Your task to perform on an android device: Clear the cart on newegg. Image 0: 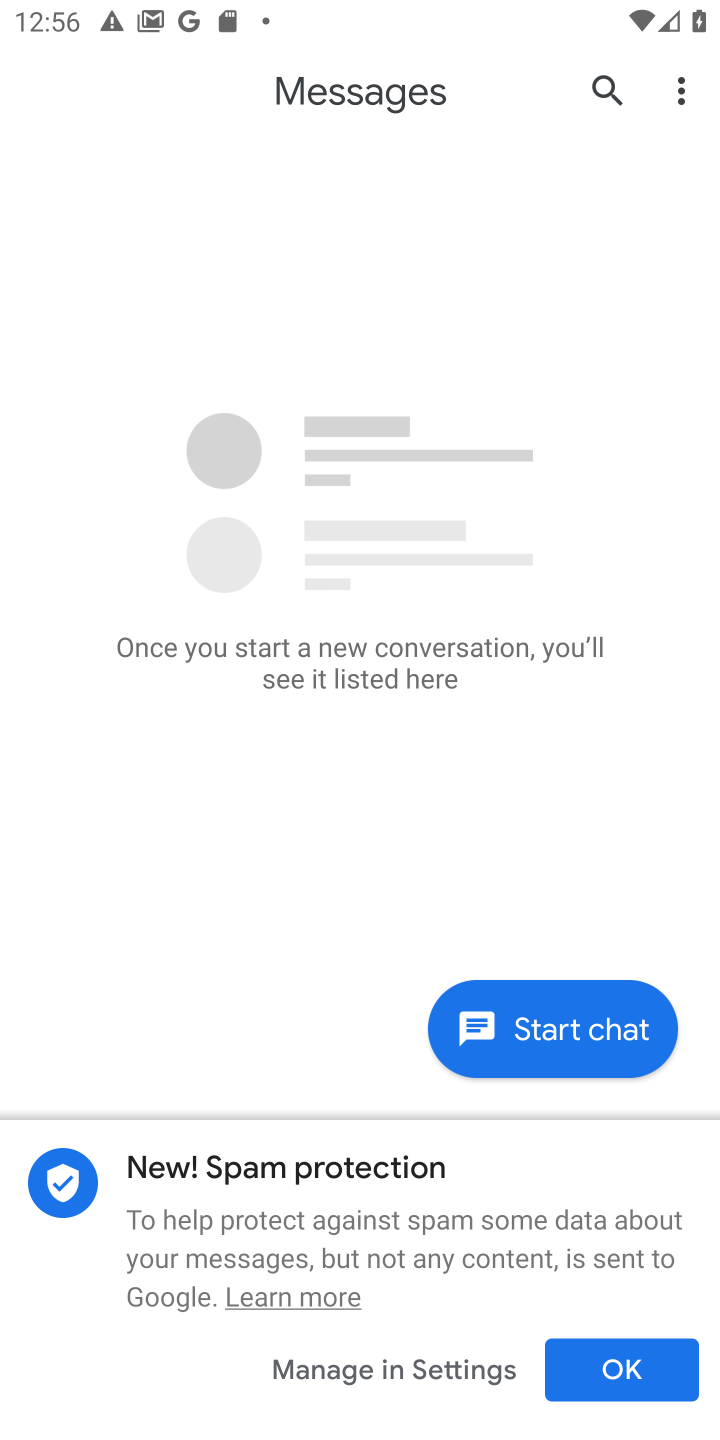
Step 0: press home button
Your task to perform on an android device: Clear the cart on newegg. Image 1: 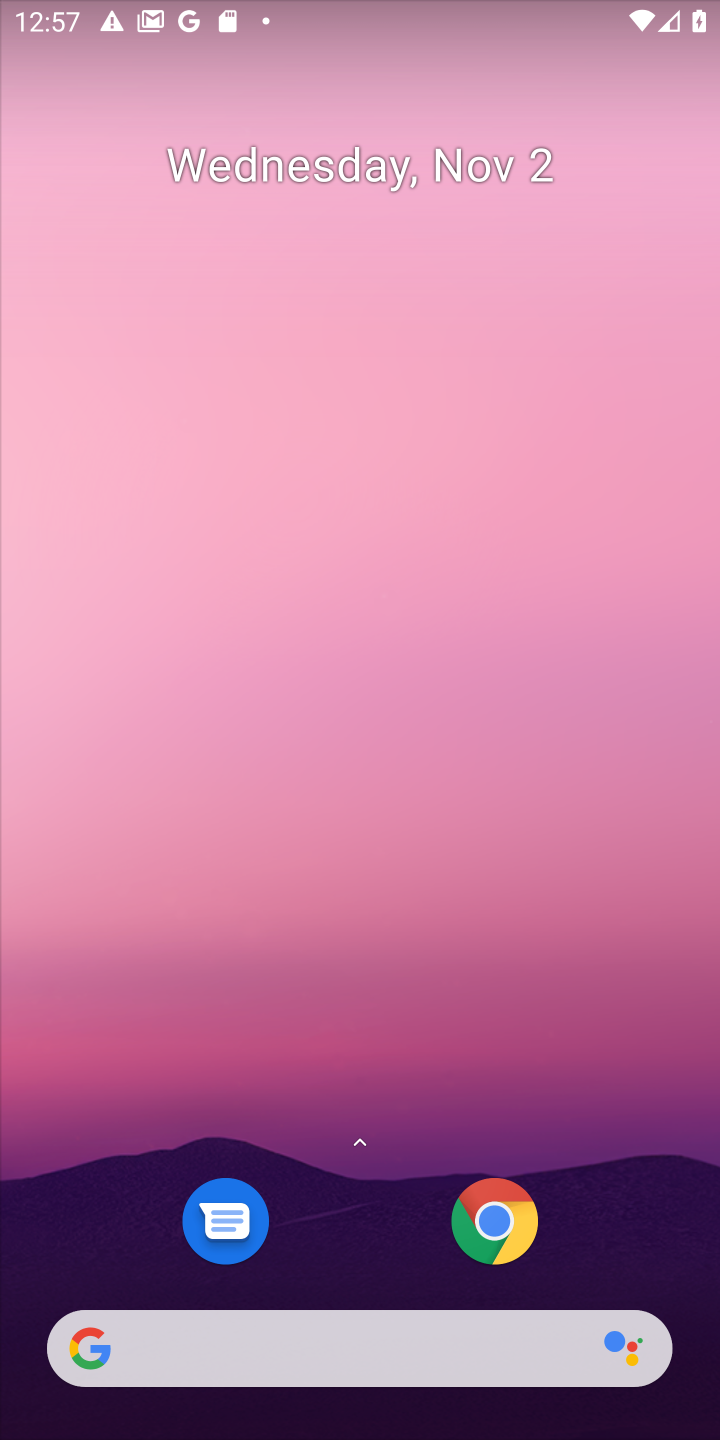
Step 1: click (362, 1365)
Your task to perform on an android device: Clear the cart on newegg. Image 2: 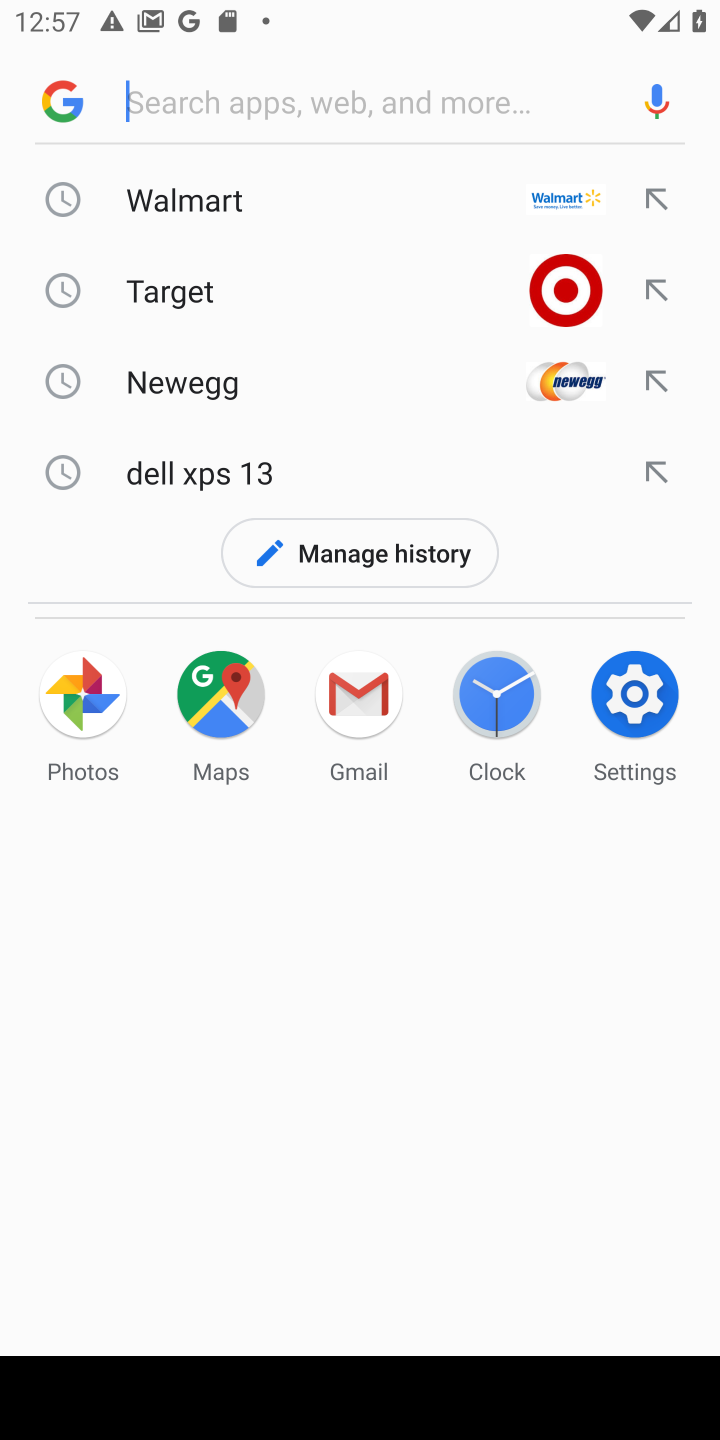
Step 2: click (175, 366)
Your task to perform on an android device: Clear the cart on newegg. Image 3: 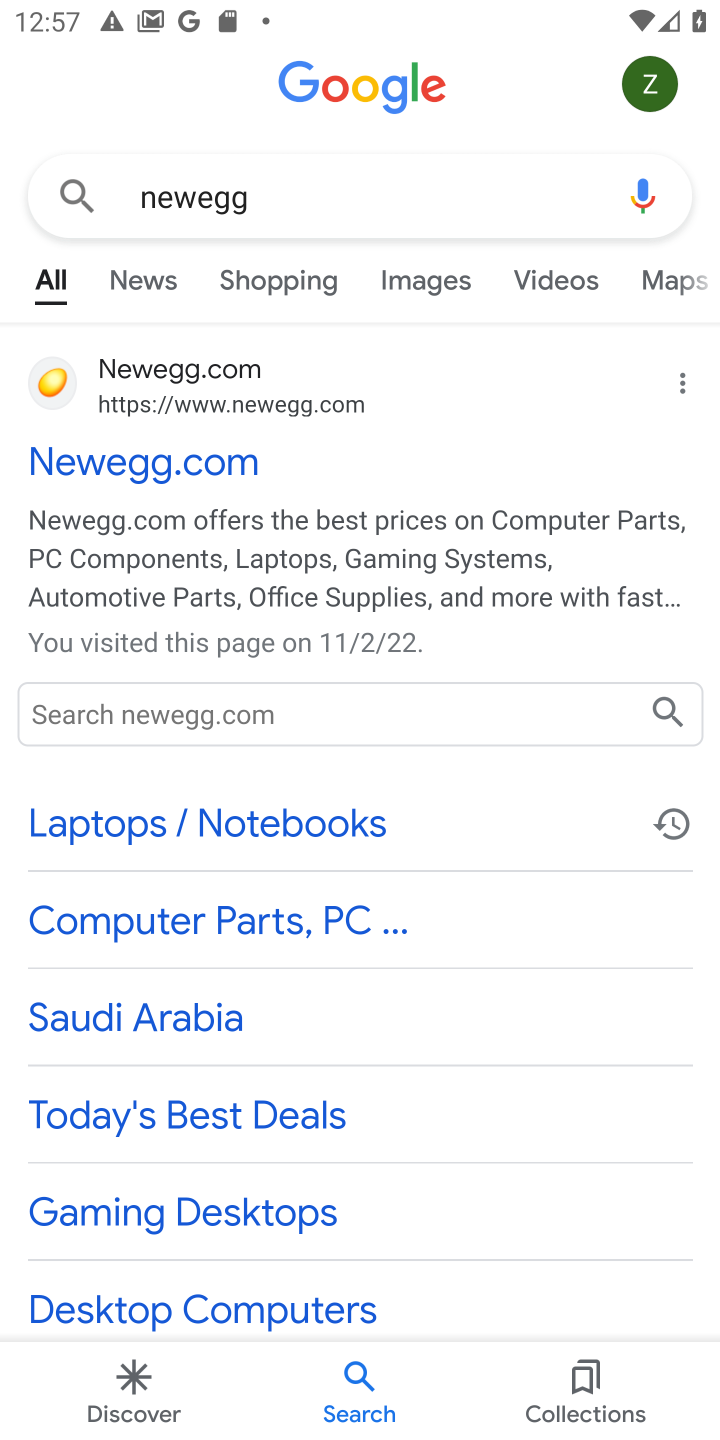
Step 3: click (148, 459)
Your task to perform on an android device: Clear the cart on newegg. Image 4: 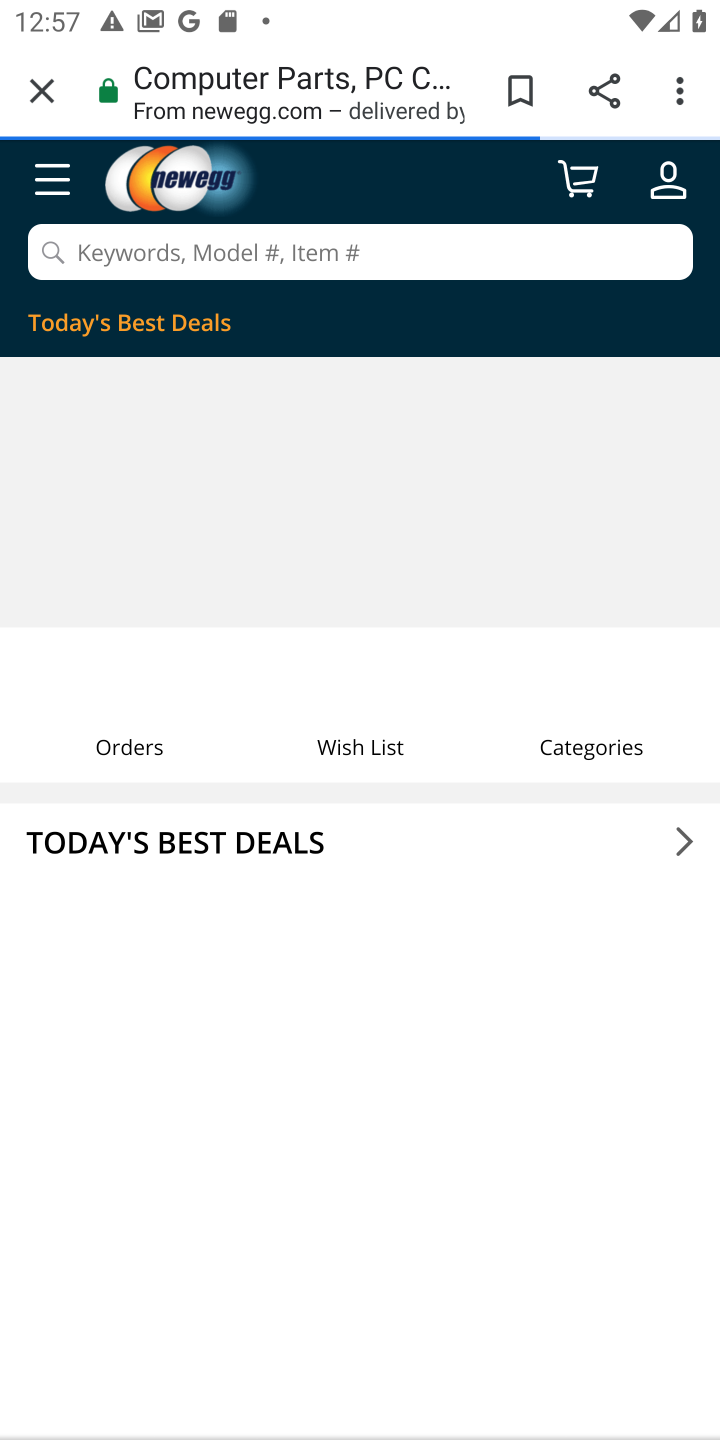
Step 4: click (571, 172)
Your task to perform on an android device: Clear the cart on newegg. Image 5: 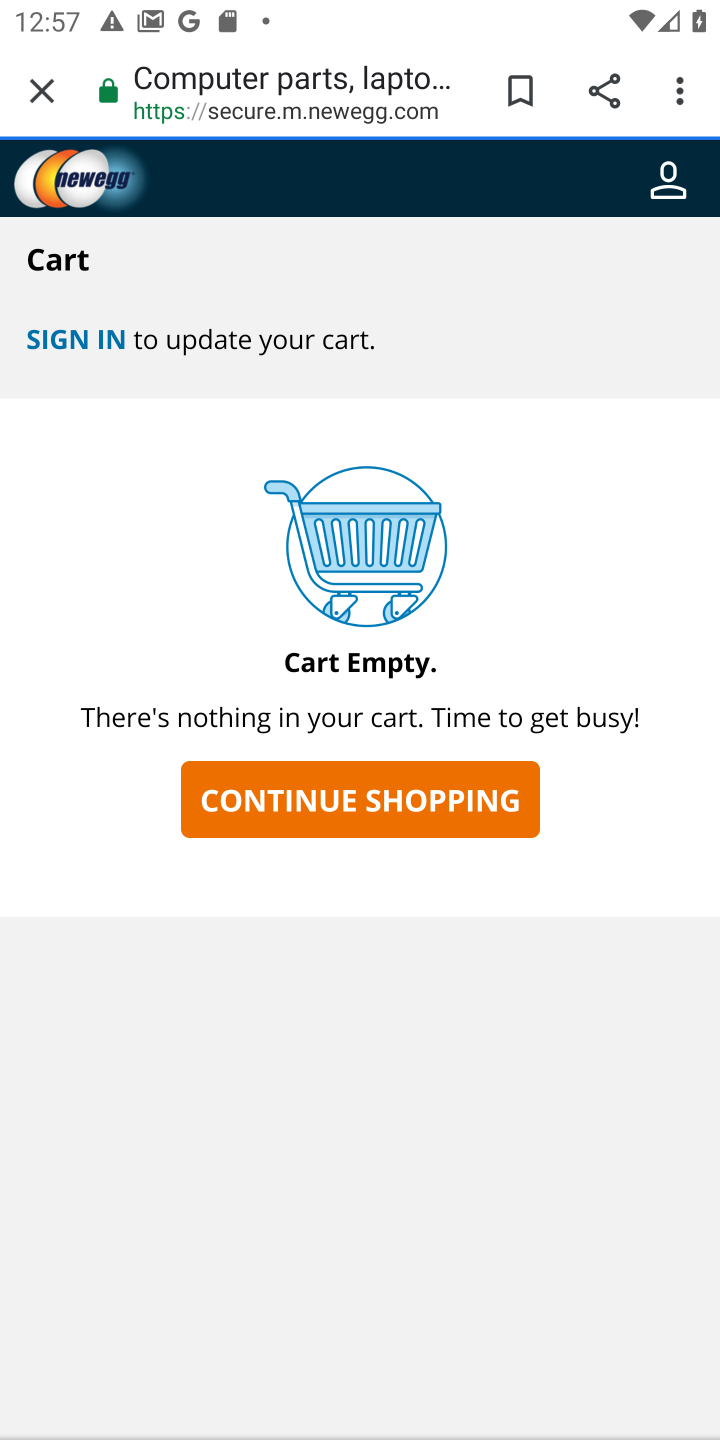
Step 5: task complete